Your task to perform on an android device: check battery use Image 0: 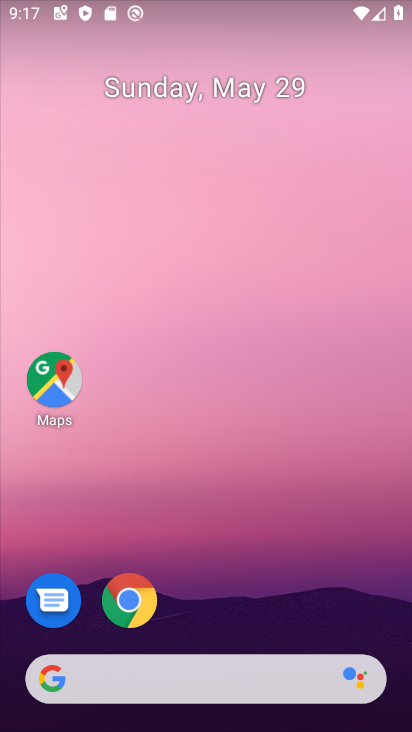
Step 0: drag from (198, 721) to (127, 23)
Your task to perform on an android device: check battery use Image 1: 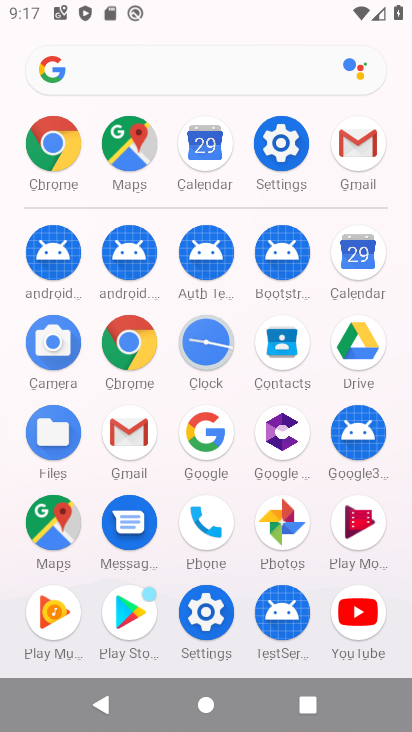
Step 1: click (273, 138)
Your task to perform on an android device: check battery use Image 2: 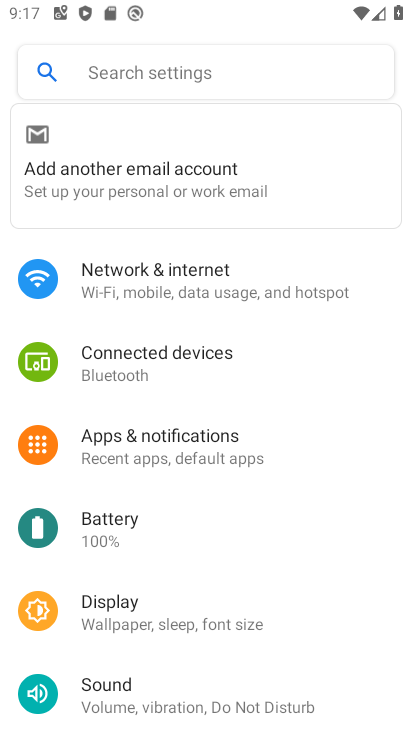
Step 2: drag from (117, 669) to (113, 507)
Your task to perform on an android device: check battery use Image 3: 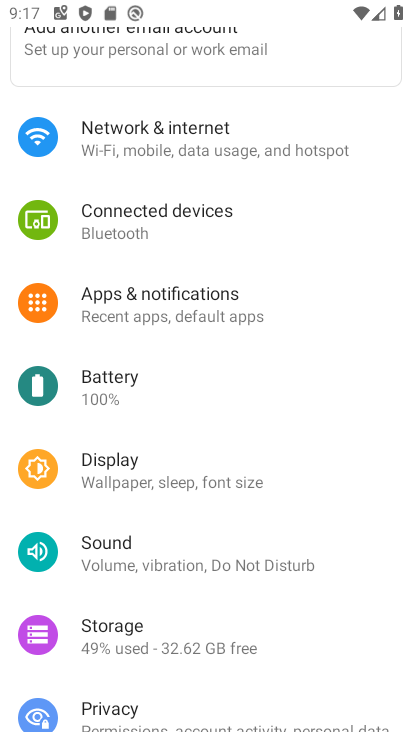
Step 3: click (109, 376)
Your task to perform on an android device: check battery use Image 4: 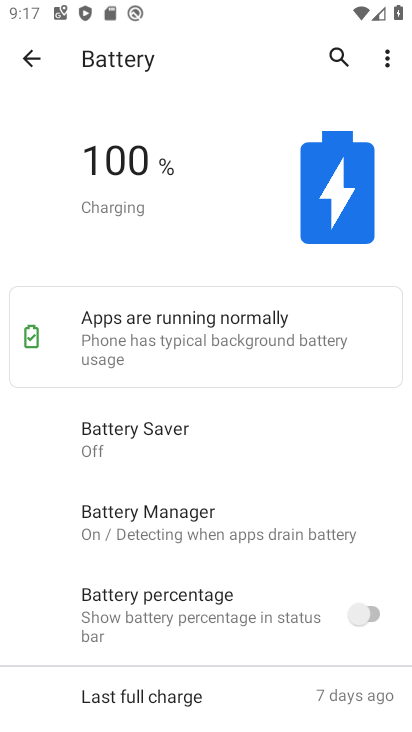
Step 4: click (386, 62)
Your task to perform on an android device: check battery use Image 5: 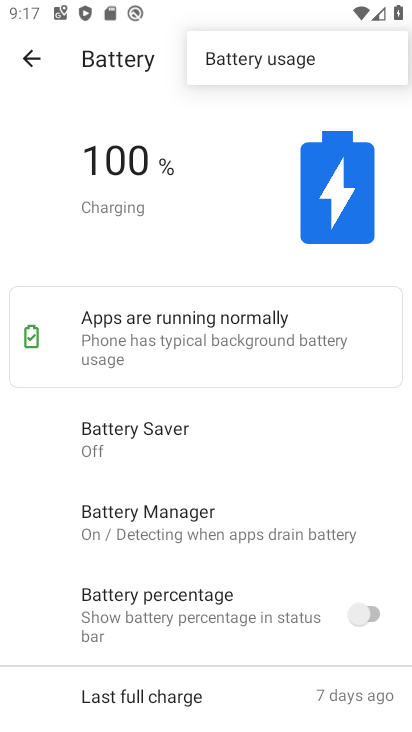
Step 5: click (267, 55)
Your task to perform on an android device: check battery use Image 6: 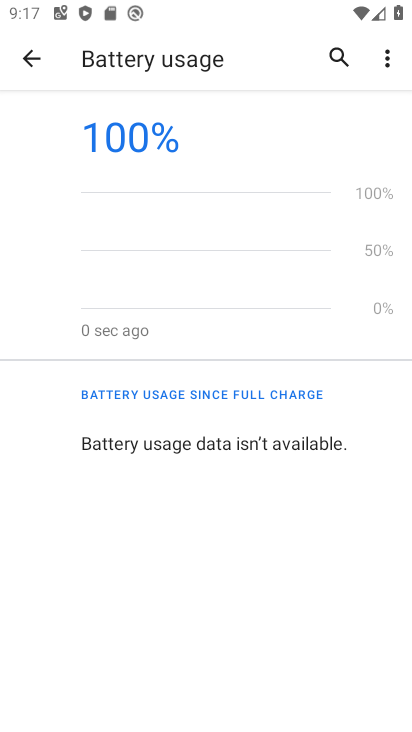
Step 6: task complete